Your task to perform on an android device: turn on showing notifications on the lock screen Image 0: 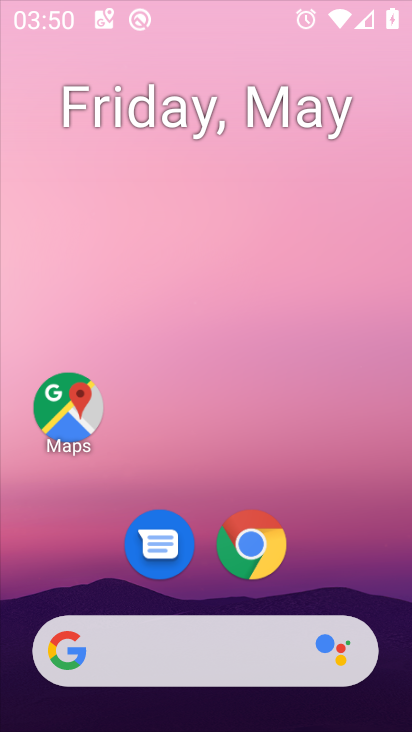
Step 0: click (149, 106)
Your task to perform on an android device: turn on showing notifications on the lock screen Image 1: 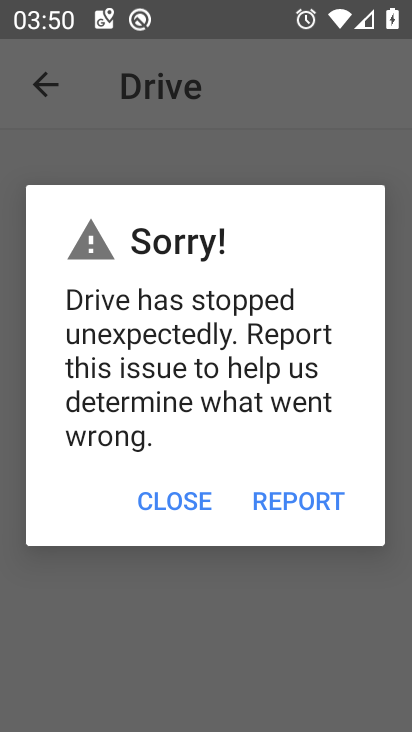
Step 1: click (177, 496)
Your task to perform on an android device: turn on showing notifications on the lock screen Image 2: 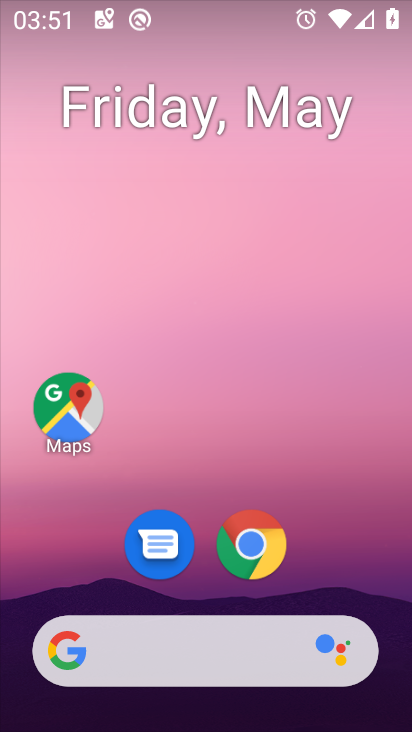
Step 2: drag from (291, 508) to (243, 151)
Your task to perform on an android device: turn on showing notifications on the lock screen Image 3: 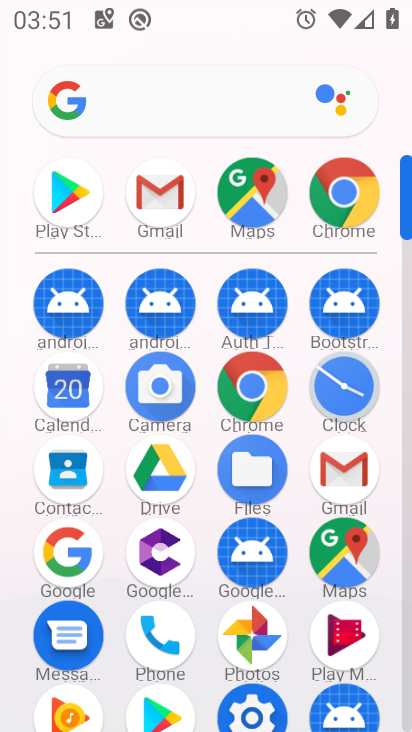
Step 3: click (342, 386)
Your task to perform on an android device: turn on showing notifications on the lock screen Image 4: 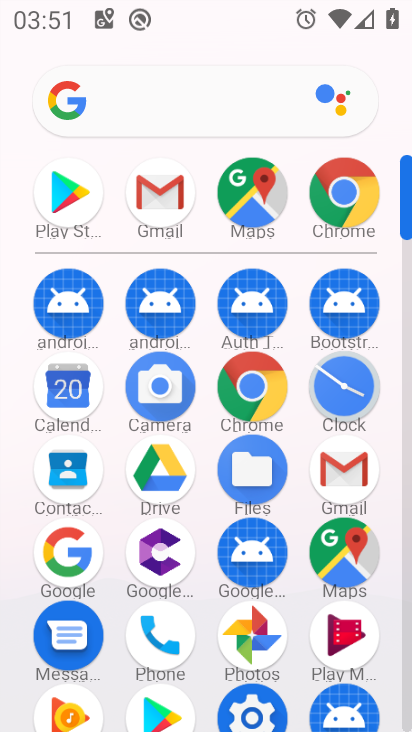
Step 4: click (342, 386)
Your task to perform on an android device: turn on showing notifications on the lock screen Image 5: 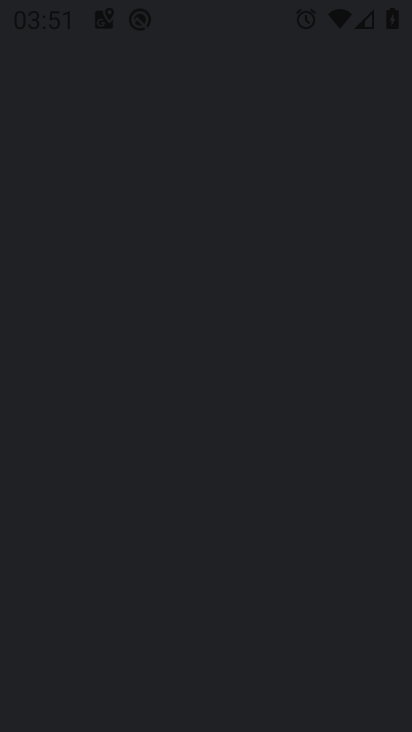
Step 5: click (342, 386)
Your task to perform on an android device: turn on showing notifications on the lock screen Image 6: 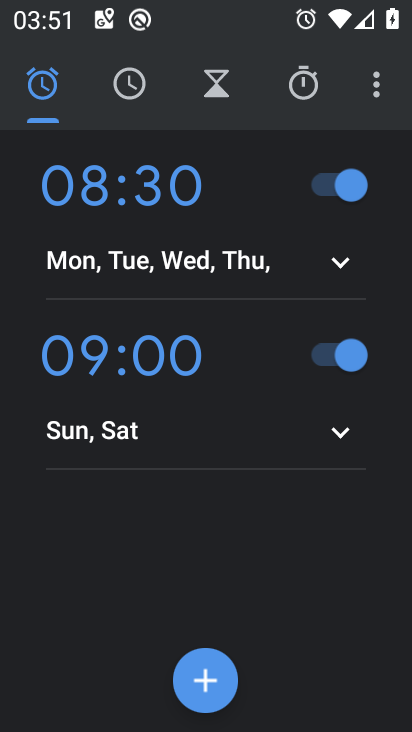
Step 6: click (366, 88)
Your task to perform on an android device: turn on showing notifications on the lock screen Image 7: 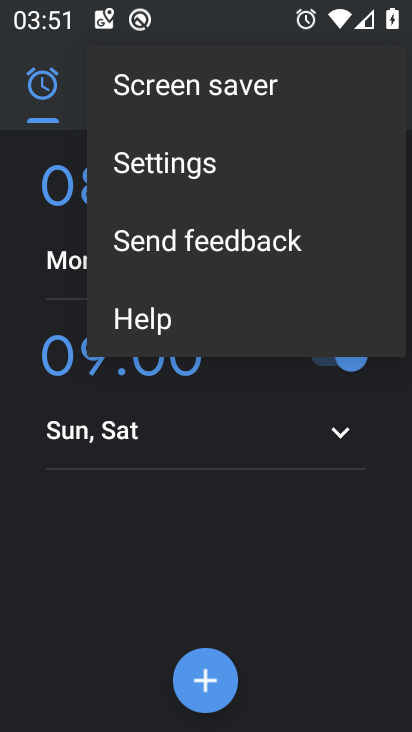
Step 7: click (173, 155)
Your task to perform on an android device: turn on showing notifications on the lock screen Image 8: 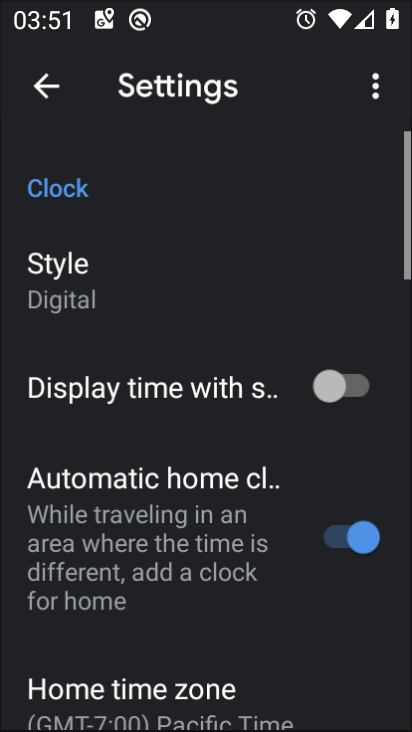
Step 8: click (299, 583)
Your task to perform on an android device: turn on showing notifications on the lock screen Image 9: 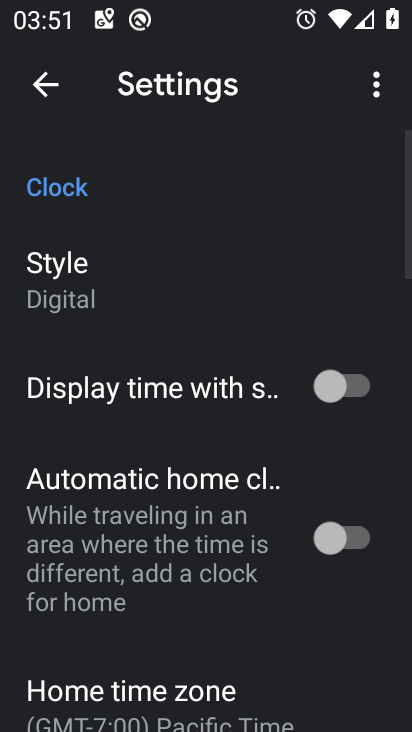
Step 9: drag from (172, 547) to (78, 160)
Your task to perform on an android device: turn on showing notifications on the lock screen Image 10: 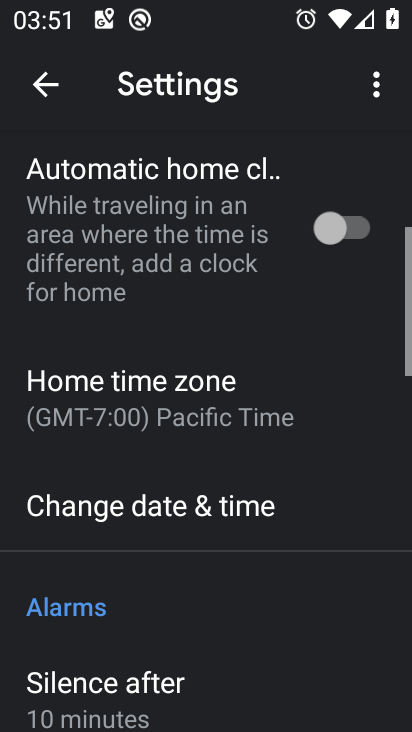
Step 10: drag from (131, 450) to (92, 38)
Your task to perform on an android device: turn on showing notifications on the lock screen Image 11: 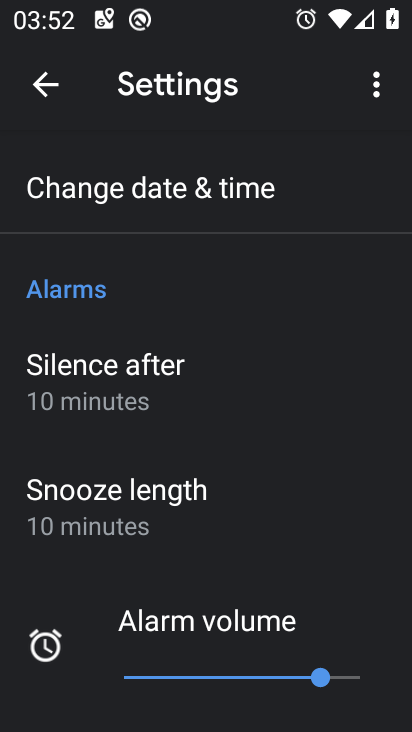
Step 11: drag from (159, 526) to (100, 173)
Your task to perform on an android device: turn on showing notifications on the lock screen Image 12: 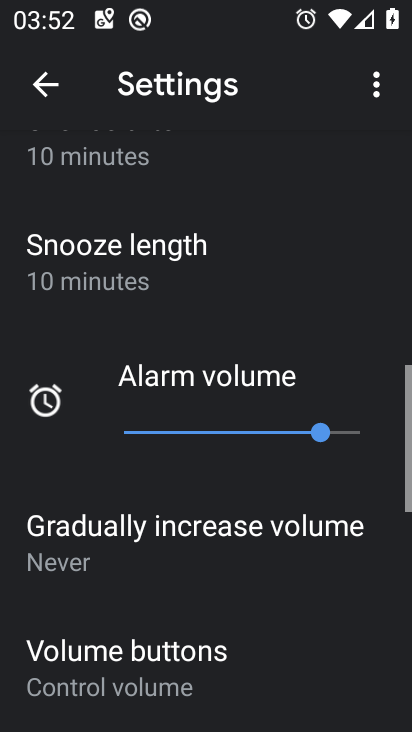
Step 12: drag from (205, 441) to (135, 201)
Your task to perform on an android device: turn on showing notifications on the lock screen Image 13: 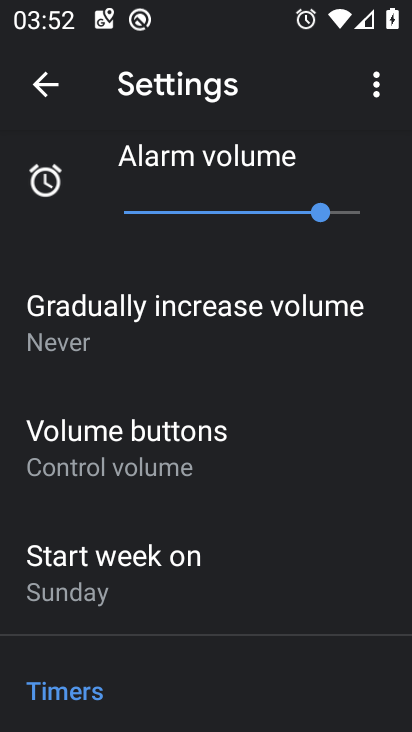
Step 13: drag from (137, 497) to (112, 148)
Your task to perform on an android device: turn on showing notifications on the lock screen Image 14: 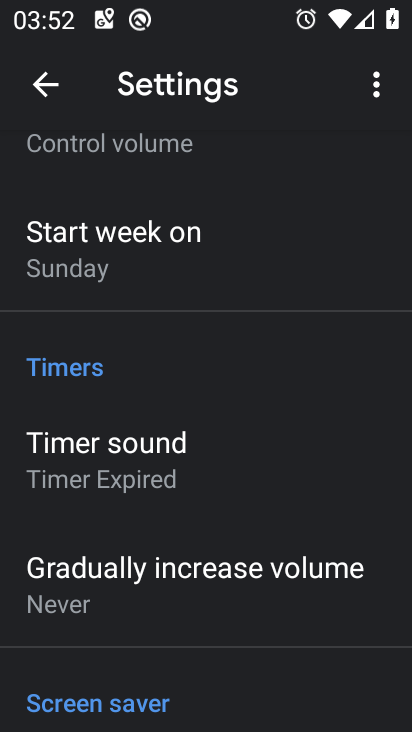
Step 14: drag from (168, 449) to (150, 65)
Your task to perform on an android device: turn on showing notifications on the lock screen Image 15: 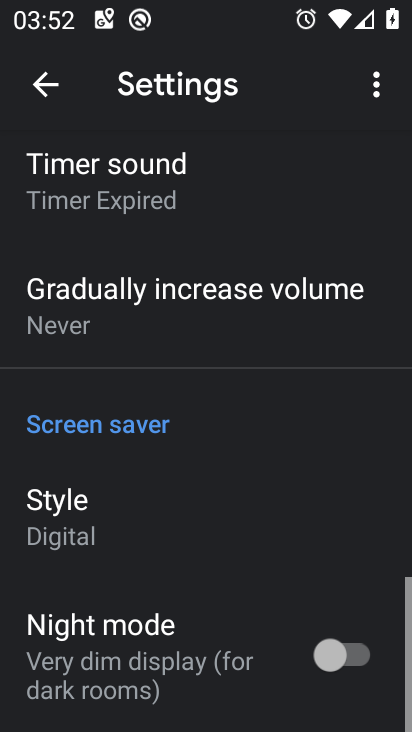
Step 15: drag from (209, 355) to (181, 66)
Your task to perform on an android device: turn on showing notifications on the lock screen Image 16: 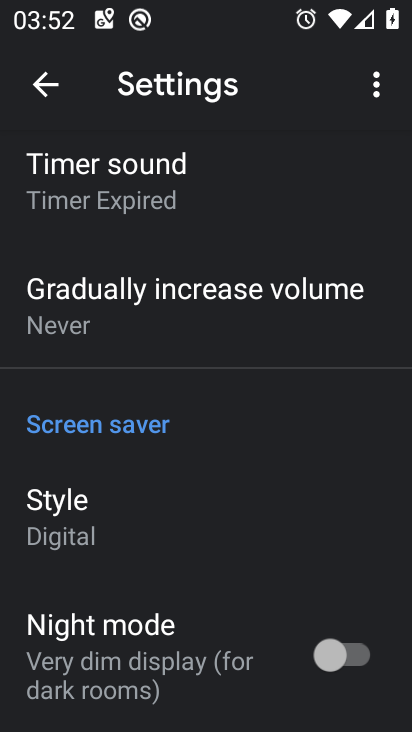
Step 16: drag from (114, 241) to (149, 492)
Your task to perform on an android device: turn on showing notifications on the lock screen Image 17: 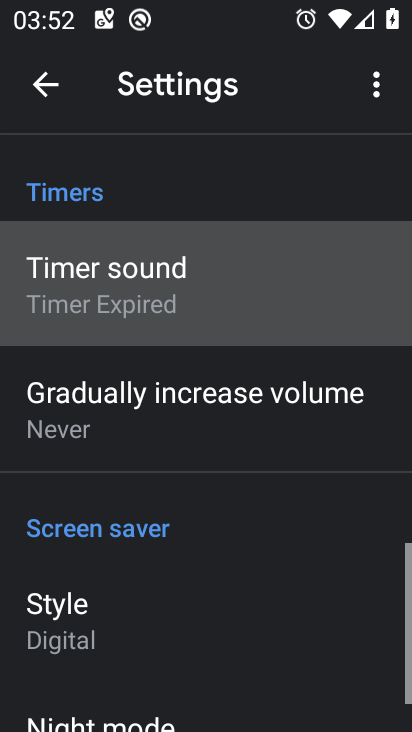
Step 17: drag from (125, 258) to (125, 525)
Your task to perform on an android device: turn on showing notifications on the lock screen Image 18: 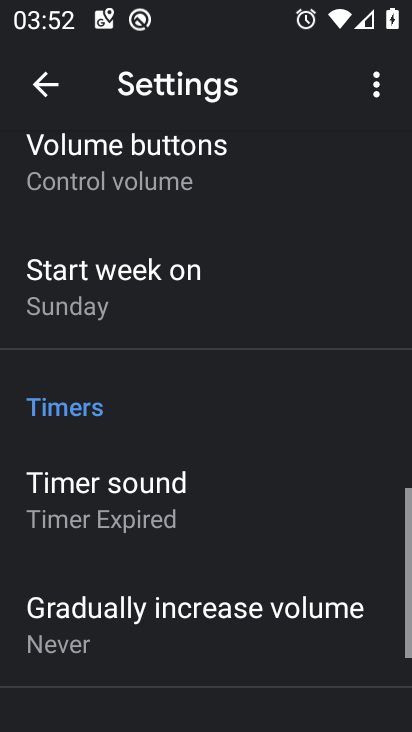
Step 18: drag from (73, 272) to (121, 523)
Your task to perform on an android device: turn on showing notifications on the lock screen Image 19: 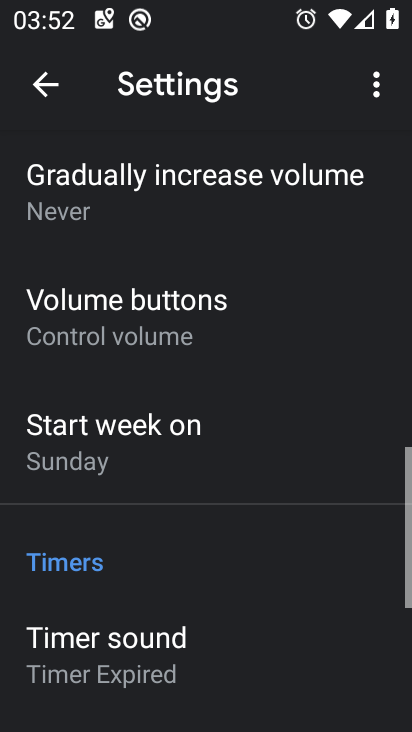
Step 19: drag from (109, 253) to (140, 537)
Your task to perform on an android device: turn on showing notifications on the lock screen Image 20: 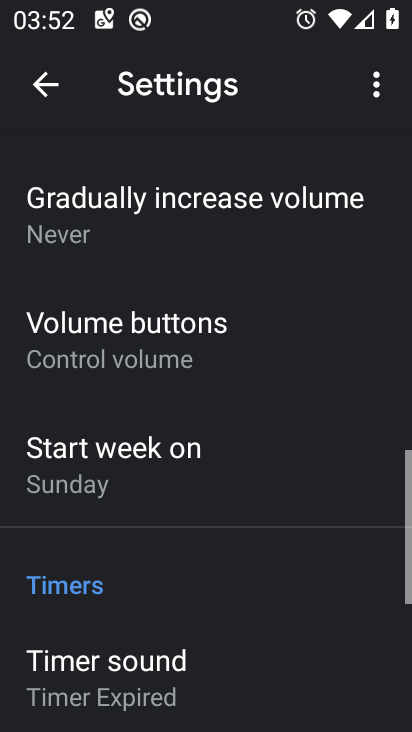
Step 20: drag from (79, 321) to (119, 592)
Your task to perform on an android device: turn on showing notifications on the lock screen Image 21: 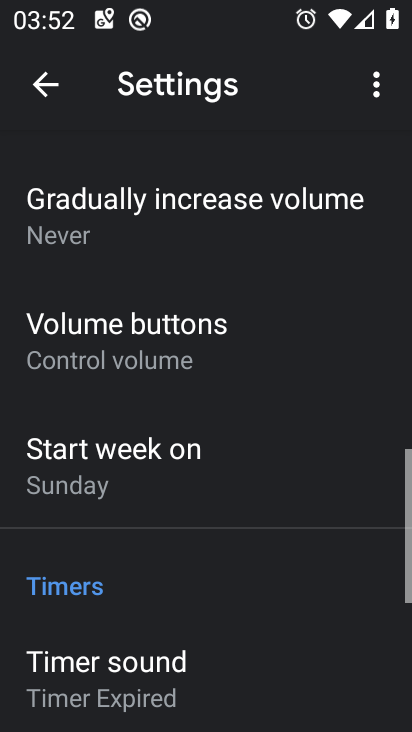
Step 21: drag from (58, 276) to (117, 606)
Your task to perform on an android device: turn on showing notifications on the lock screen Image 22: 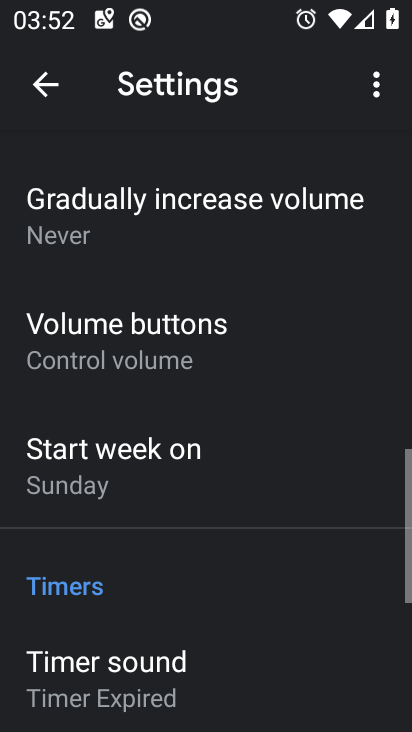
Step 22: drag from (55, 375) to (85, 570)
Your task to perform on an android device: turn on showing notifications on the lock screen Image 23: 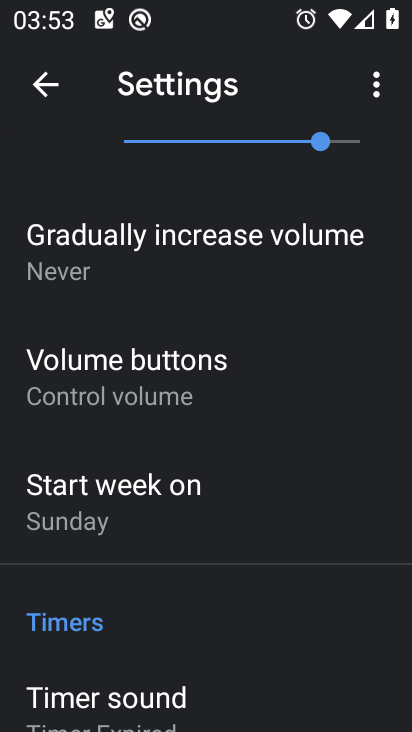
Step 23: drag from (178, 580) to (102, 73)
Your task to perform on an android device: turn on showing notifications on the lock screen Image 24: 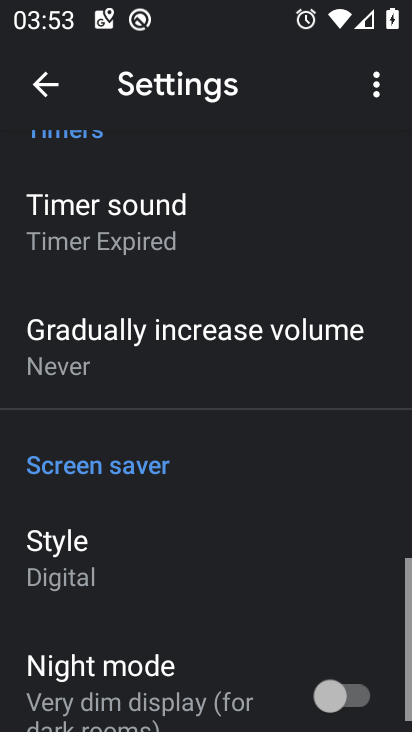
Step 24: drag from (196, 433) to (156, 65)
Your task to perform on an android device: turn on showing notifications on the lock screen Image 25: 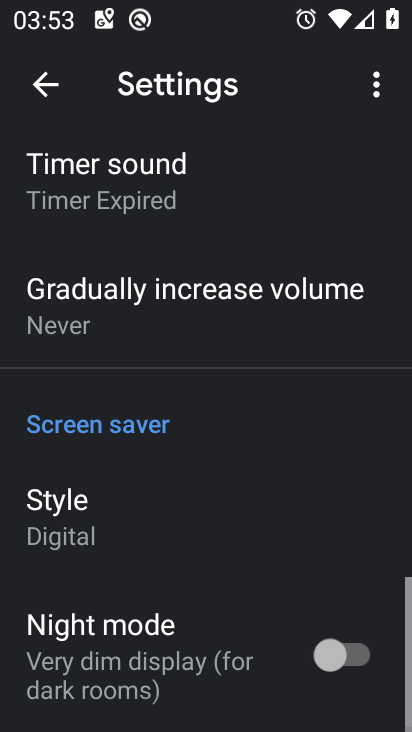
Step 25: drag from (127, 442) to (104, 73)
Your task to perform on an android device: turn on showing notifications on the lock screen Image 26: 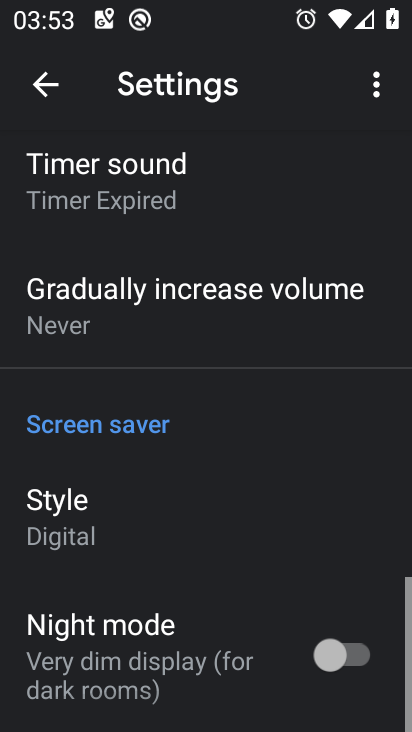
Step 26: drag from (132, 410) to (107, 69)
Your task to perform on an android device: turn on showing notifications on the lock screen Image 27: 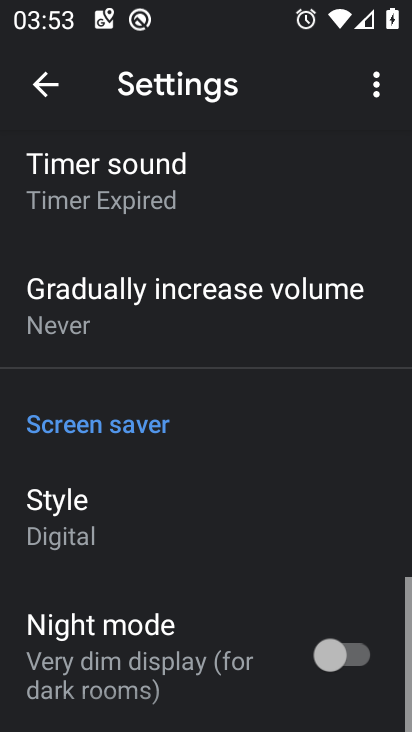
Step 27: drag from (129, 465) to (96, 123)
Your task to perform on an android device: turn on showing notifications on the lock screen Image 28: 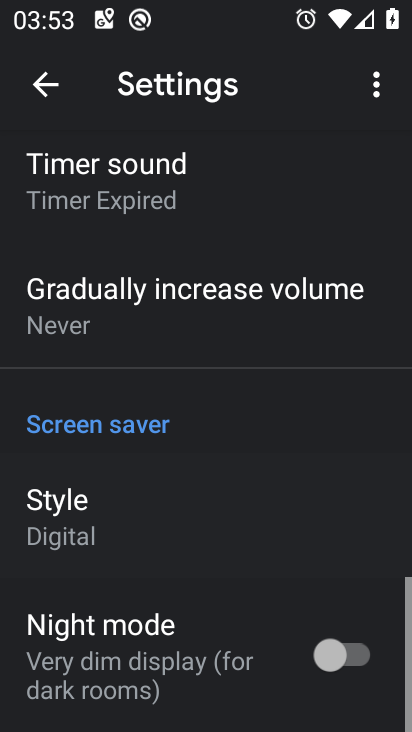
Step 28: drag from (121, 362) to (115, 59)
Your task to perform on an android device: turn on showing notifications on the lock screen Image 29: 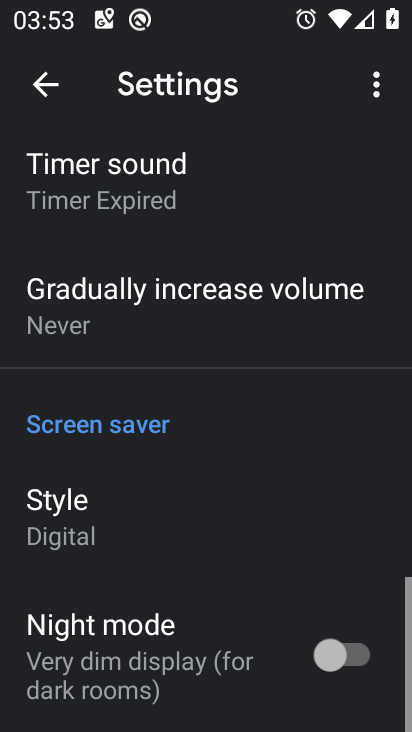
Step 29: click (113, 142)
Your task to perform on an android device: turn on showing notifications on the lock screen Image 30: 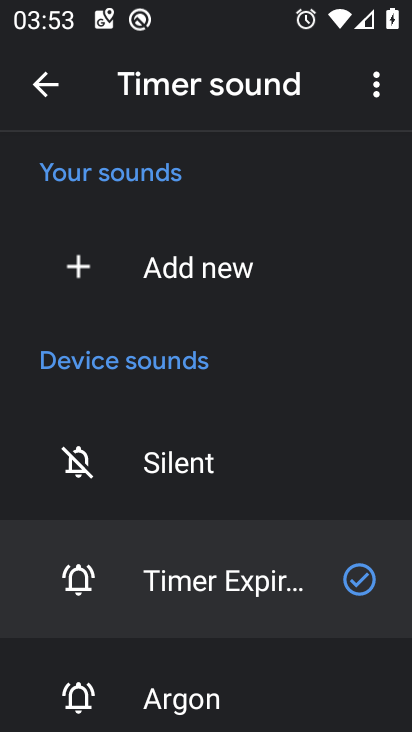
Step 30: click (71, 705)
Your task to perform on an android device: turn on showing notifications on the lock screen Image 31: 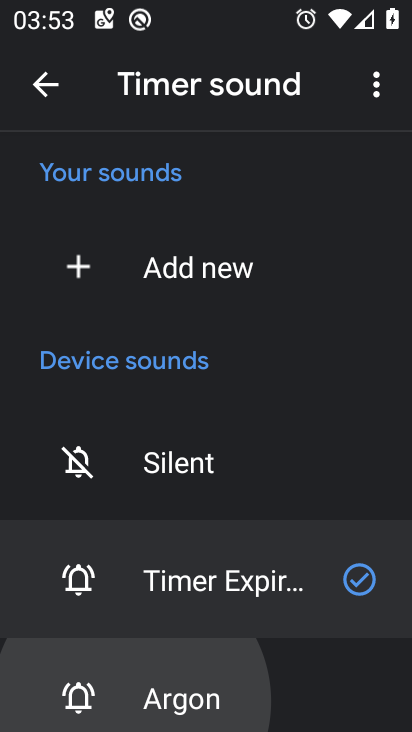
Step 31: click (71, 705)
Your task to perform on an android device: turn on showing notifications on the lock screen Image 32: 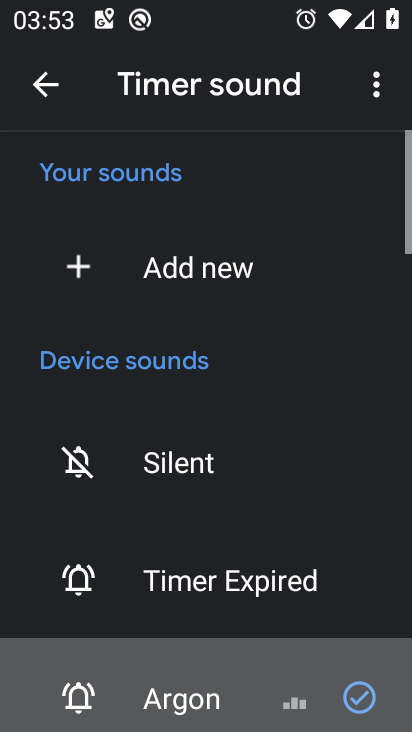
Step 32: click (70, 700)
Your task to perform on an android device: turn on showing notifications on the lock screen Image 33: 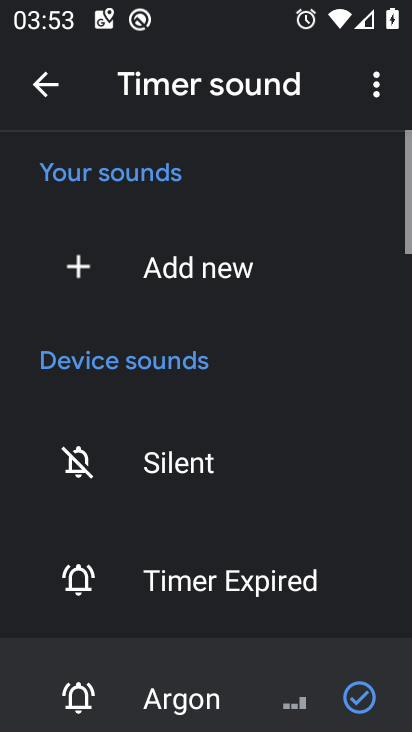
Step 33: task complete